Your task to perform on an android device: Open Google Chrome Image 0: 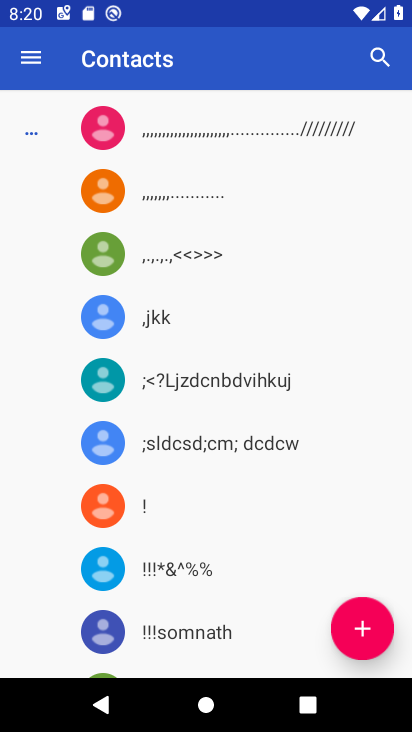
Step 0: press home button
Your task to perform on an android device: Open Google Chrome Image 1: 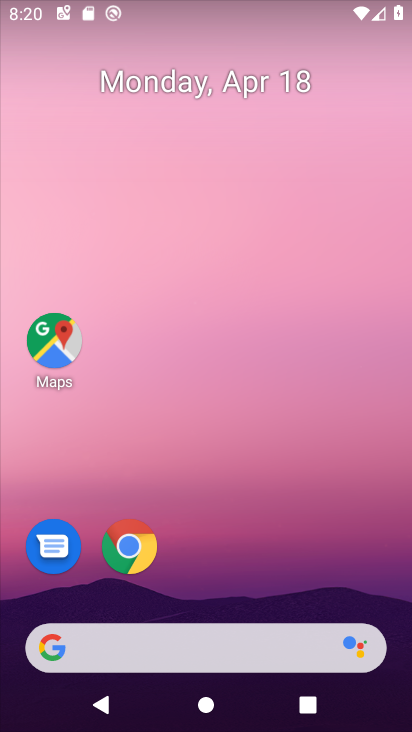
Step 1: click (125, 560)
Your task to perform on an android device: Open Google Chrome Image 2: 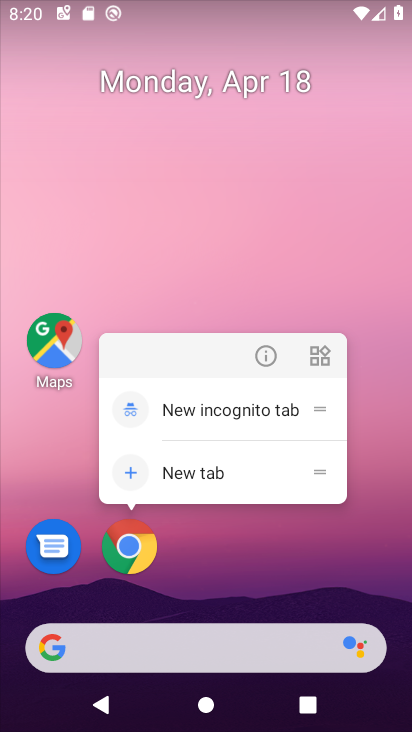
Step 2: click (125, 560)
Your task to perform on an android device: Open Google Chrome Image 3: 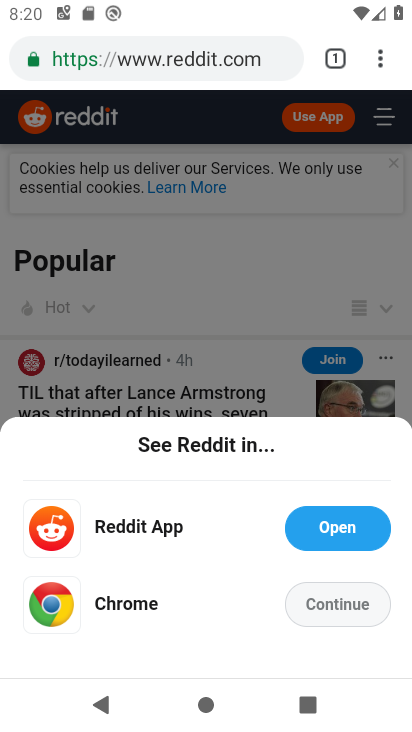
Step 3: click (357, 612)
Your task to perform on an android device: Open Google Chrome Image 4: 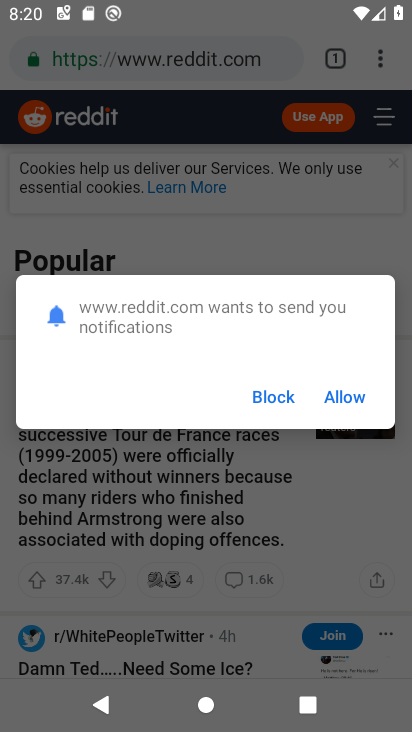
Step 4: task complete